Your task to perform on an android device: check battery use Image 0: 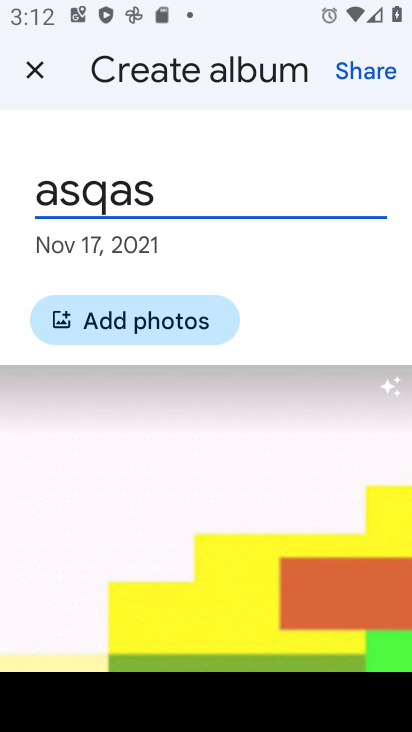
Step 0: press home button
Your task to perform on an android device: check battery use Image 1: 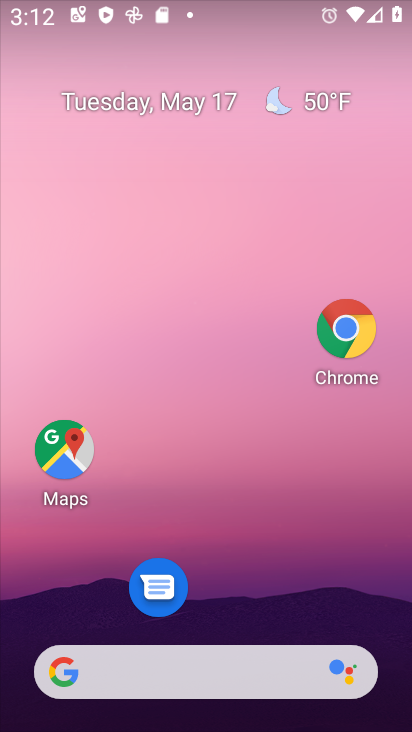
Step 1: drag from (280, 603) to (284, 129)
Your task to perform on an android device: check battery use Image 2: 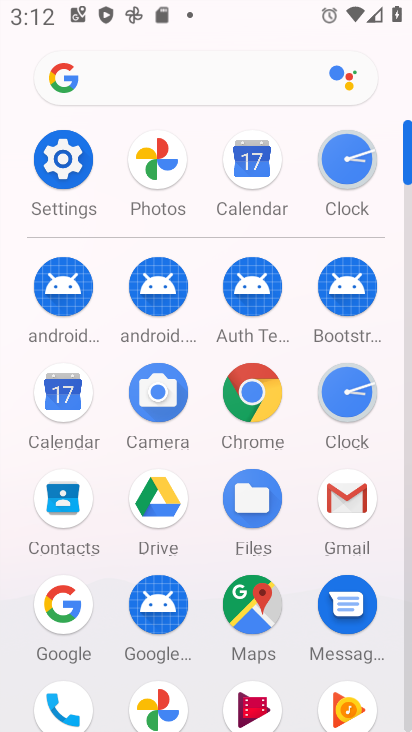
Step 2: click (70, 171)
Your task to perform on an android device: check battery use Image 3: 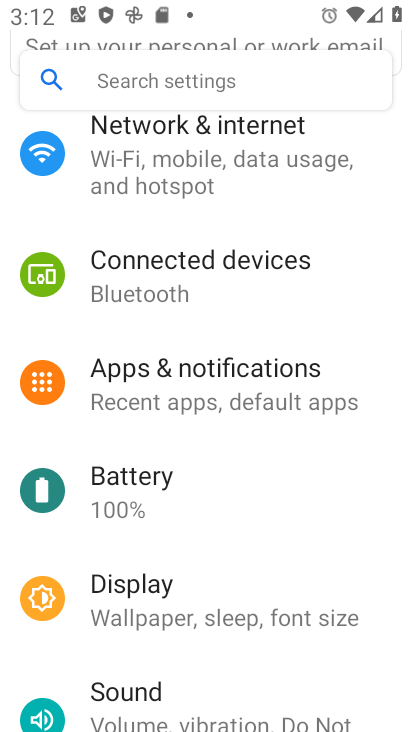
Step 3: click (146, 480)
Your task to perform on an android device: check battery use Image 4: 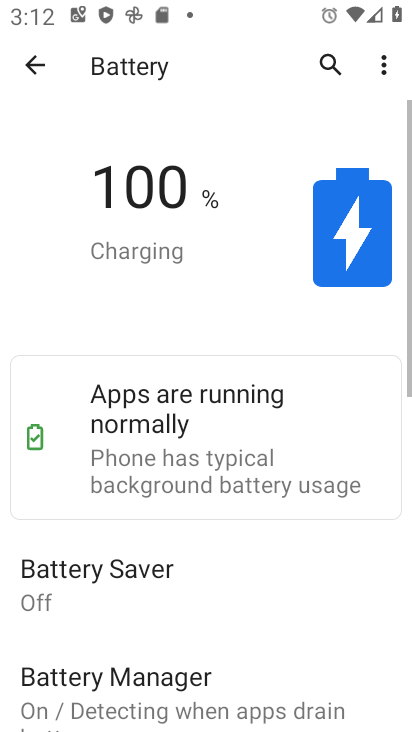
Step 4: task complete